Your task to perform on an android device: Open calendar and show me the fourth week of next month Image 0: 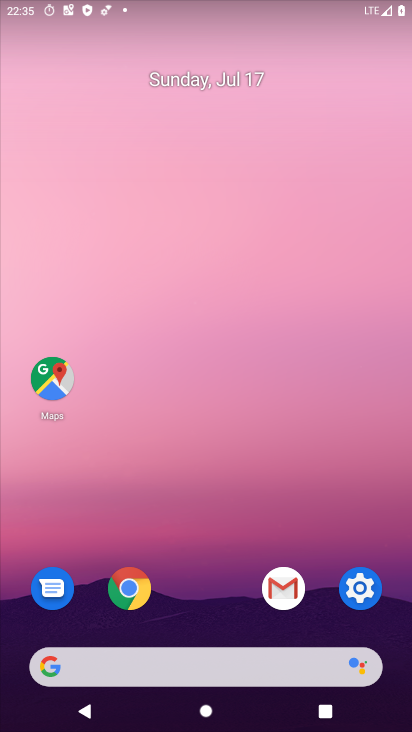
Step 0: drag from (282, 664) to (239, 91)
Your task to perform on an android device: Open calendar and show me the fourth week of next month Image 1: 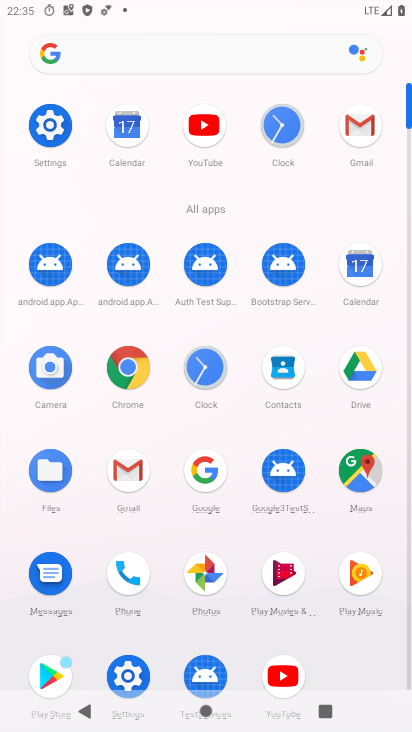
Step 1: click (347, 286)
Your task to perform on an android device: Open calendar and show me the fourth week of next month Image 2: 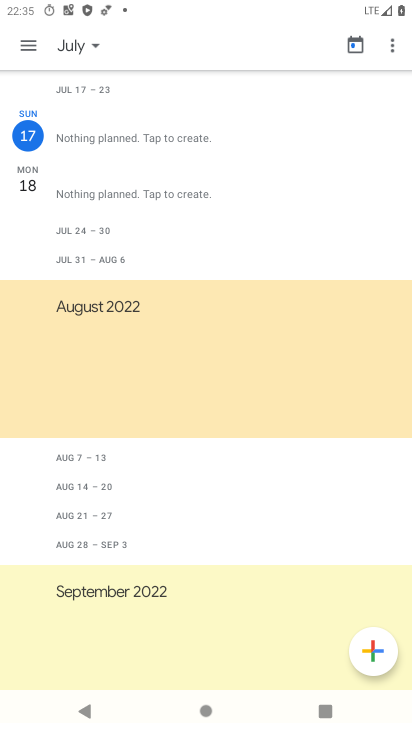
Step 2: click (26, 46)
Your task to perform on an android device: Open calendar and show me the fourth week of next month Image 3: 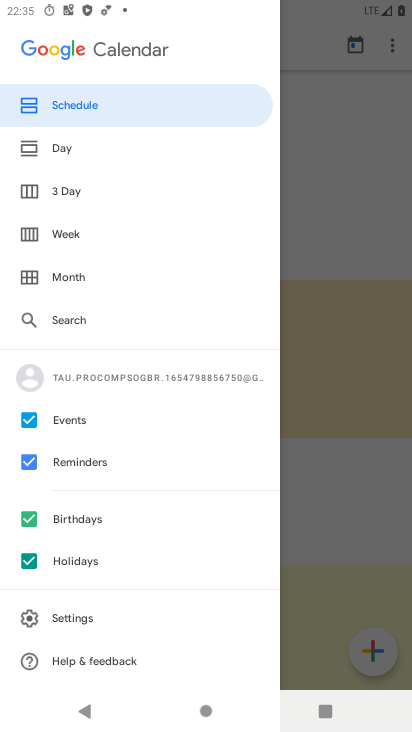
Step 3: click (74, 273)
Your task to perform on an android device: Open calendar and show me the fourth week of next month Image 4: 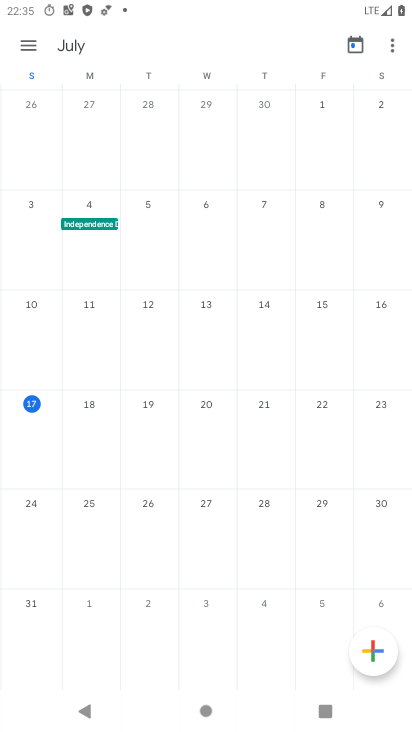
Step 4: drag from (375, 437) to (10, 353)
Your task to perform on an android device: Open calendar and show me the fourth week of next month Image 5: 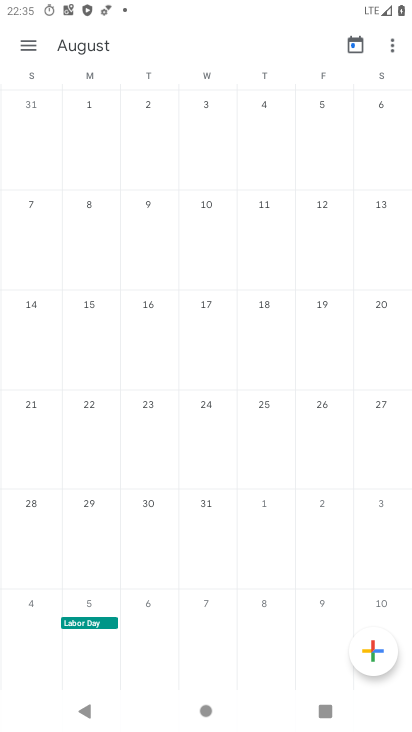
Step 5: click (91, 420)
Your task to perform on an android device: Open calendar and show me the fourth week of next month Image 6: 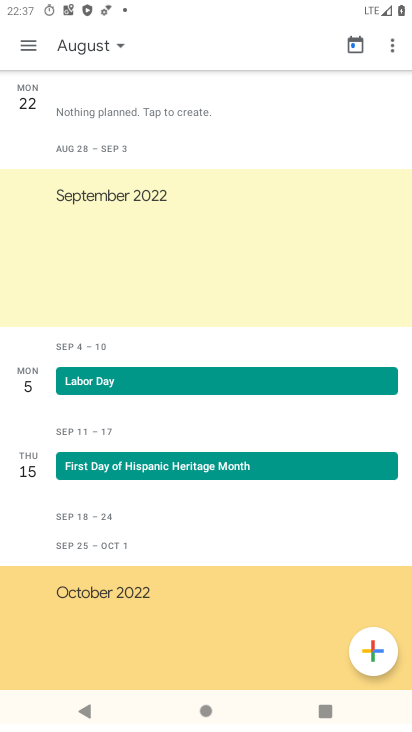
Step 6: task complete